Your task to perform on an android device: Do I have any events this weekend? Image 0: 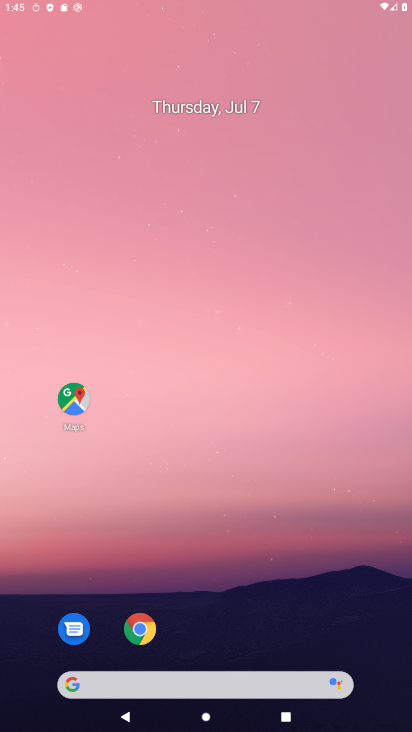
Step 0: click (142, 619)
Your task to perform on an android device: Do I have any events this weekend? Image 1: 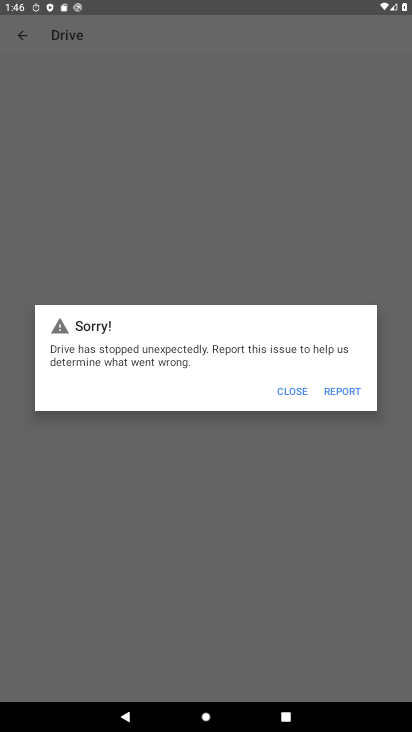
Step 1: press home button
Your task to perform on an android device: Do I have any events this weekend? Image 2: 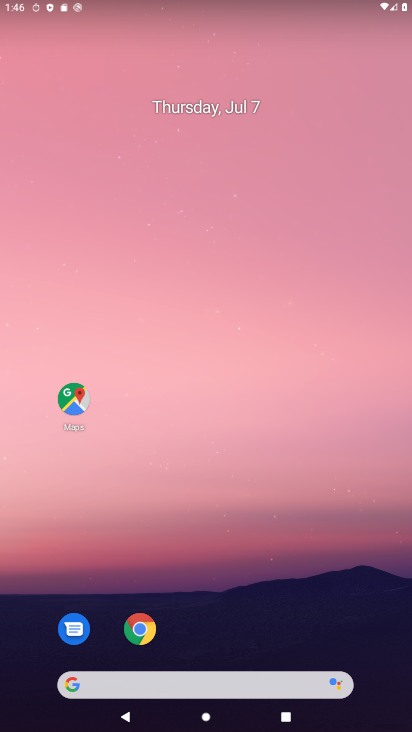
Step 2: drag from (282, 672) to (227, 51)
Your task to perform on an android device: Do I have any events this weekend? Image 3: 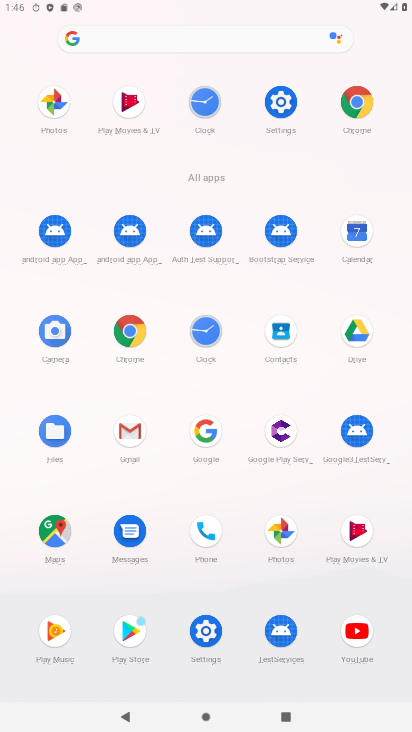
Step 3: click (354, 213)
Your task to perform on an android device: Do I have any events this weekend? Image 4: 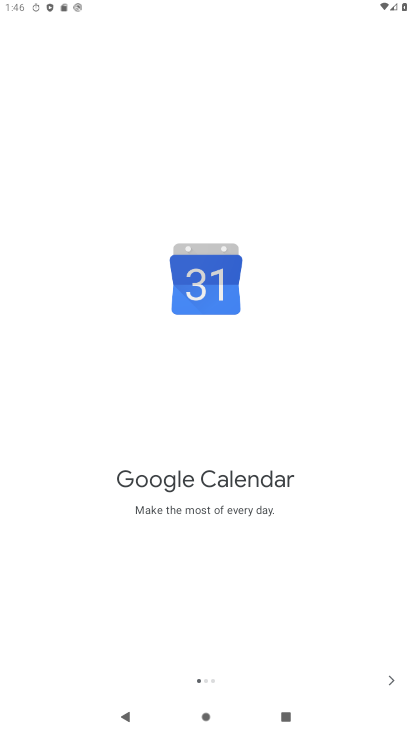
Step 4: click (390, 687)
Your task to perform on an android device: Do I have any events this weekend? Image 5: 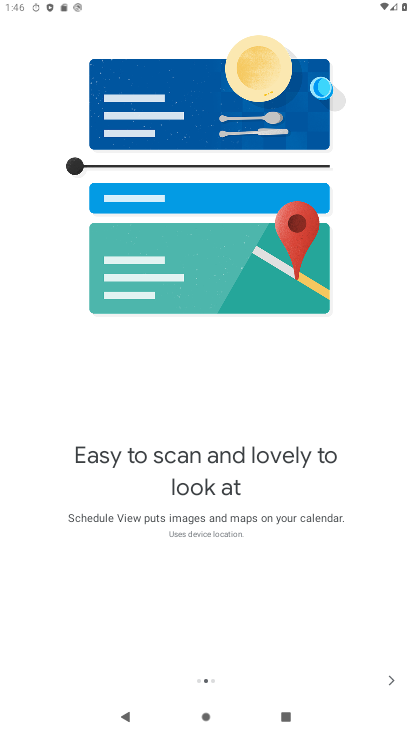
Step 5: click (390, 687)
Your task to perform on an android device: Do I have any events this weekend? Image 6: 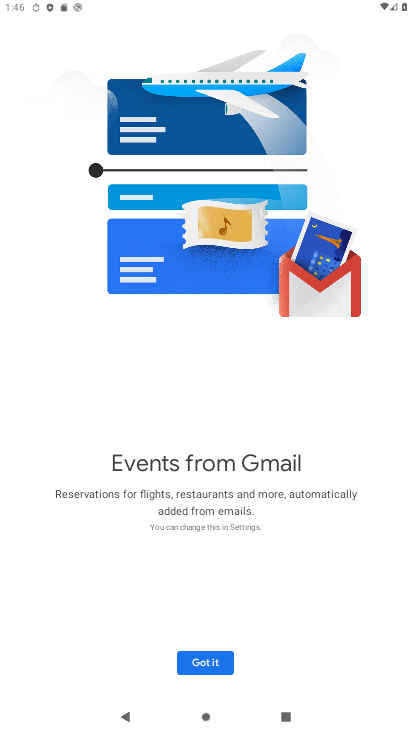
Step 6: click (211, 673)
Your task to perform on an android device: Do I have any events this weekend? Image 7: 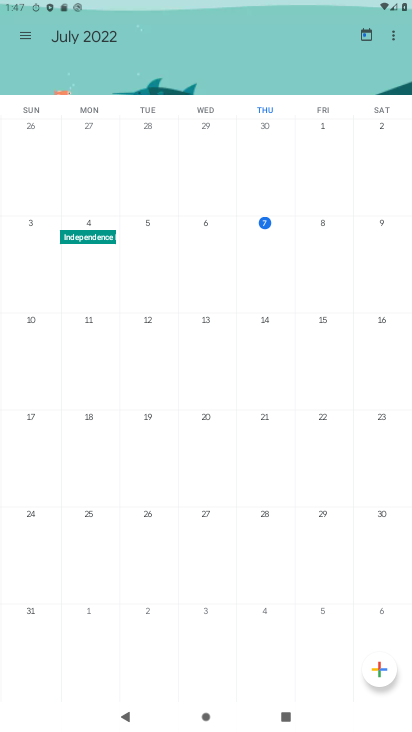
Step 7: click (19, 42)
Your task to perform on an android device: Do I have any events this weekend? Image 8: 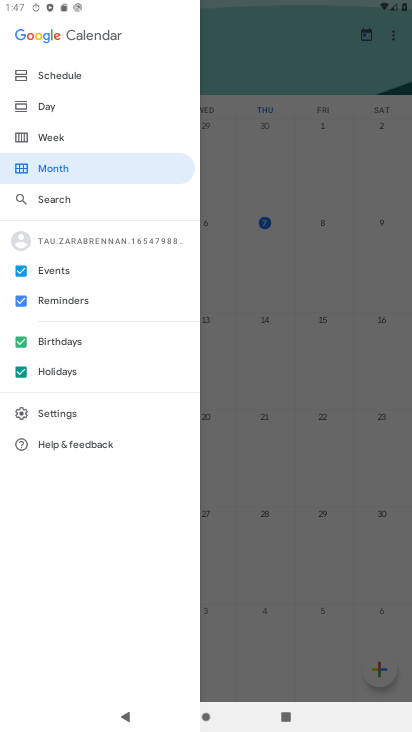
Step 8: click (71, 73)
Your task to perform on an android device: Do I have any events this weekend? Image 9: 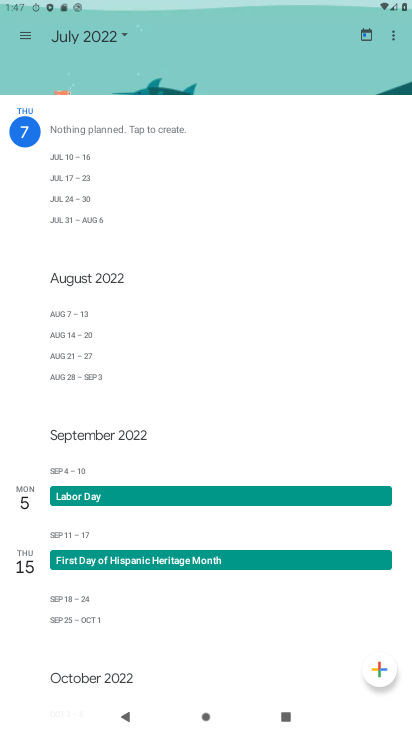
Step 9: task complete